Your task to perform on an android device: Open calendar and show me the fourth week of next month Image 0: 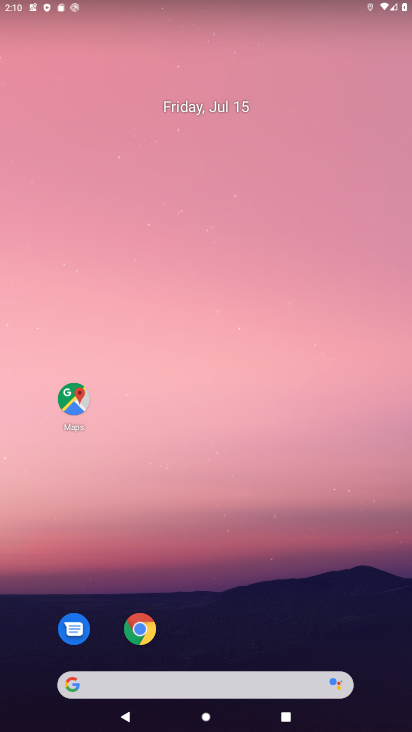
Step 0: drag from (221, 611) to (233, 110)
Your task to perform on an android device: Open calendar and show me the fourth week of next month Image 1: 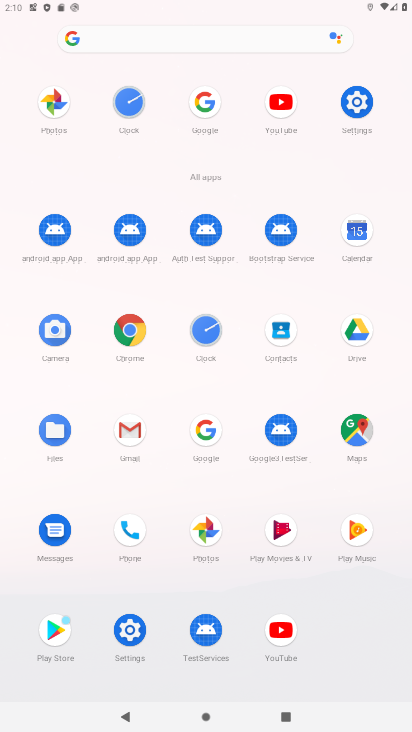
Step 1: click (358, 228)
Your task to perform on an android device: Open calendar and show me the fourth week of next month Image 2: 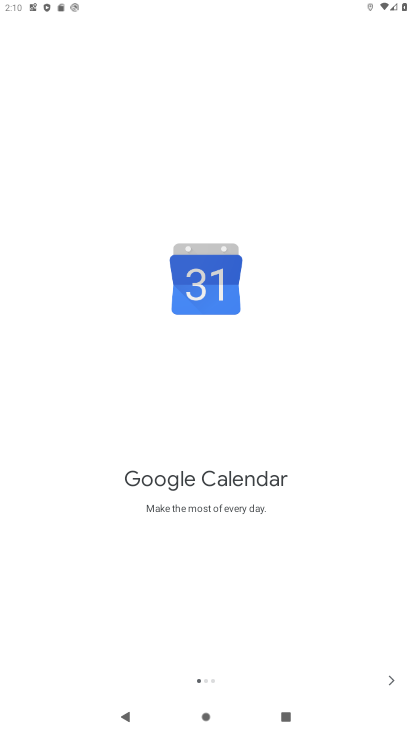
Step 2: click (393, 684)
Your task to perform on an android device: Open calendar and show me the fourth week of next month Image 3: 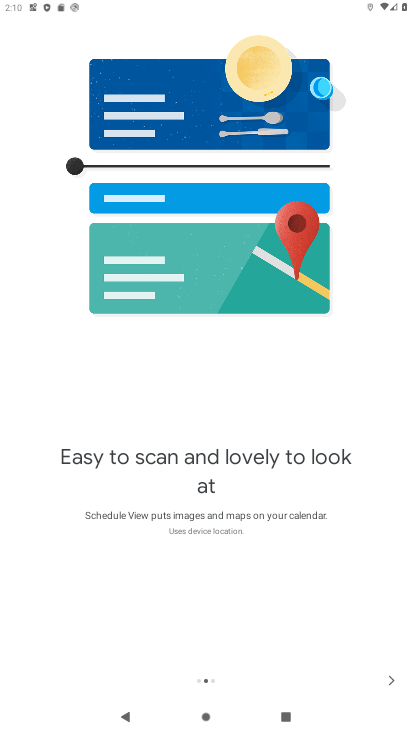
Step 3: click (393, 684)
Your task to perform on an android device: Open calendar and show me the fourth week of next month Image 4: 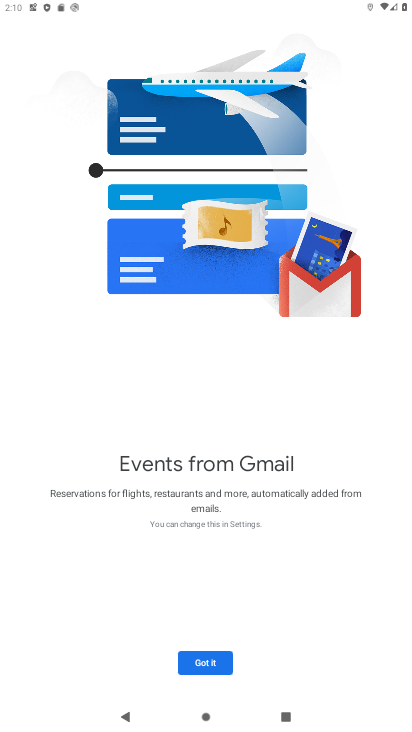
Step 4: click (213, 661)
Your task to perform on an android device: Open calendar and show me the fourth week of next month Image 5: 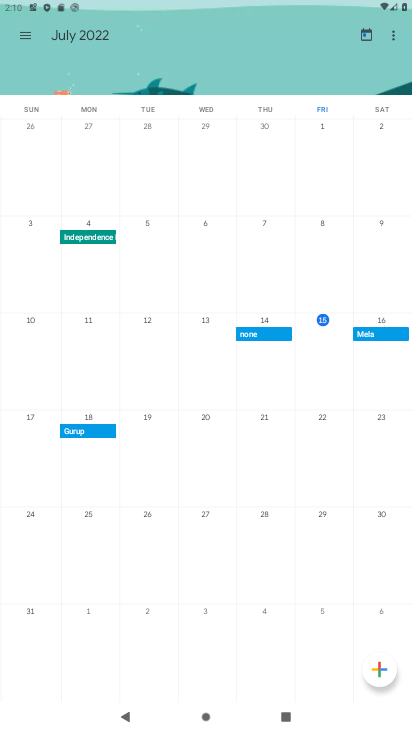
Step 5: click (17, 504)
Your task to perform on an android device: Open calendar and show me the fourth week of next month Image 6: 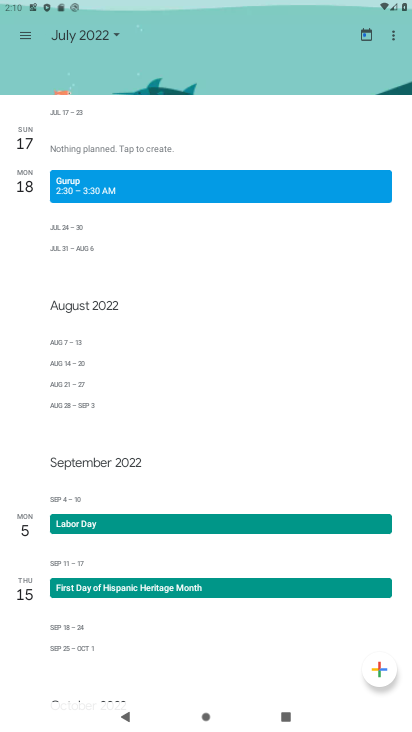
Step 6: drag from (390, 490) to (56, 480)
Your task to perform on an android device: Open calendar and show me the fourth week of next month Image 7: 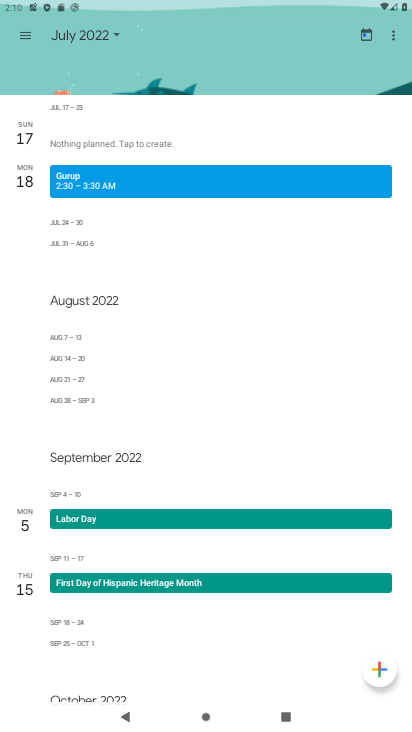
Step 7: click (114, 29)
Your task to perform on an android device: Open calendar and show me the fourth week of next month Image 8: 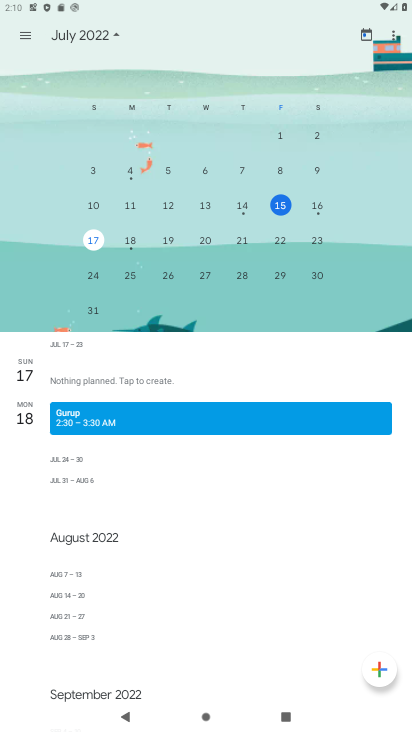
Step 8: drag from (353, 268) to (0, 260)
Your task to perform on an android device: Open calendar and show me the fourth week of next month Image 9: 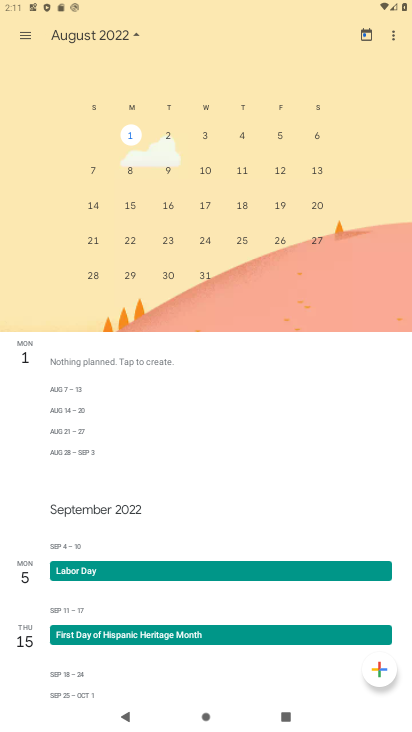
Step 9: click (239, 238)
Your task to perform on an android device: Open calendar and show me the fourth week of next month Image 10: 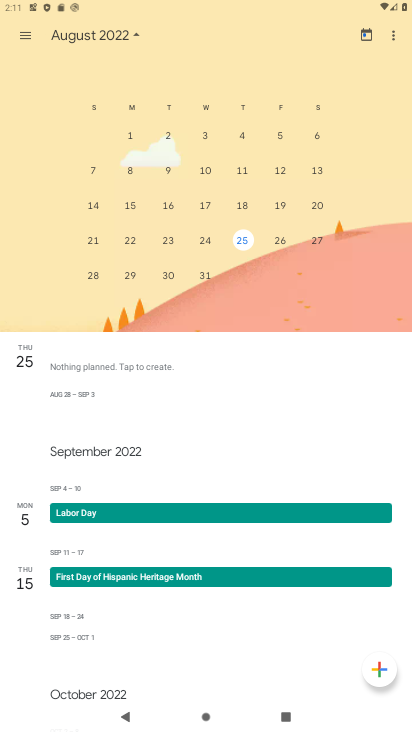
Step 10: task complete